Your task to perform on an android device: Go to privacy settings Image 0: 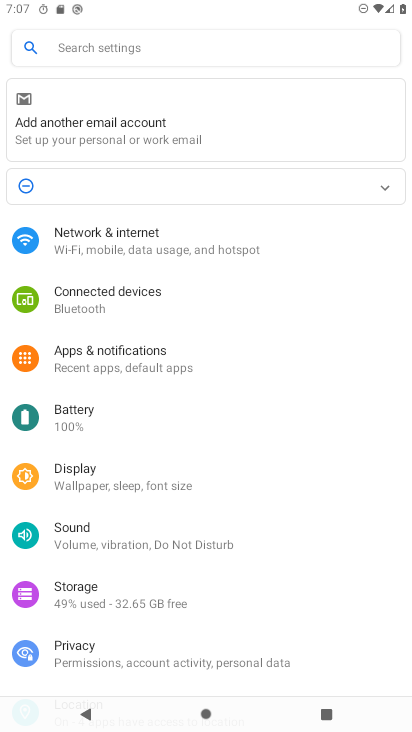
Step 0: click (102, 648)
Your task to perform on an android device: Go to privacy settings Image 1: 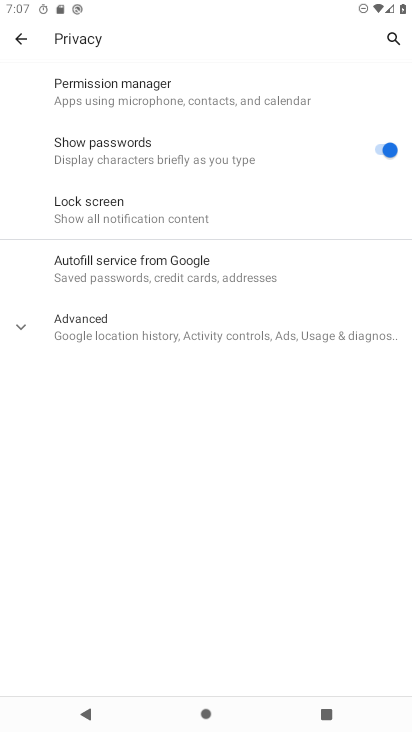
Step 1: task complete